Your task to perform on an android device: Open the phone app and click the voicemail tab. Image 0: 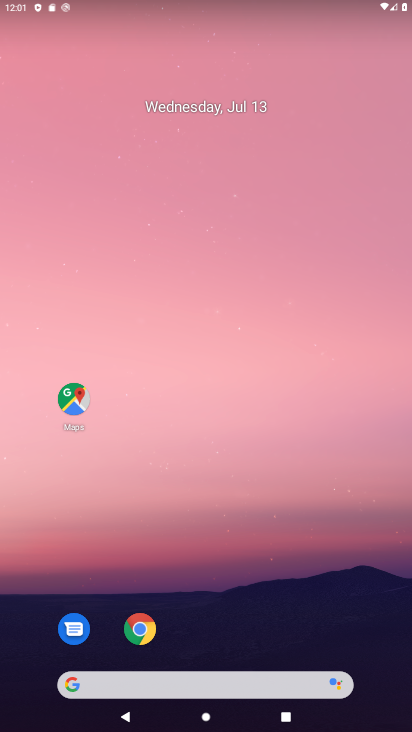
Step 0: drag from (200, 636) to (204, 141)
Your task to perform on an android device: Open the phone app and click the voicemail tab. Image 1: 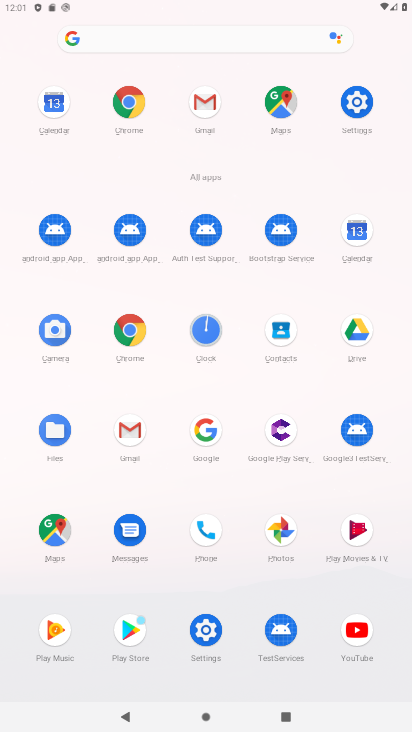
Step 1: click (207, 535)
Your task to perform on an android device: Open the phone app and click the voicemail tab. Image 2: 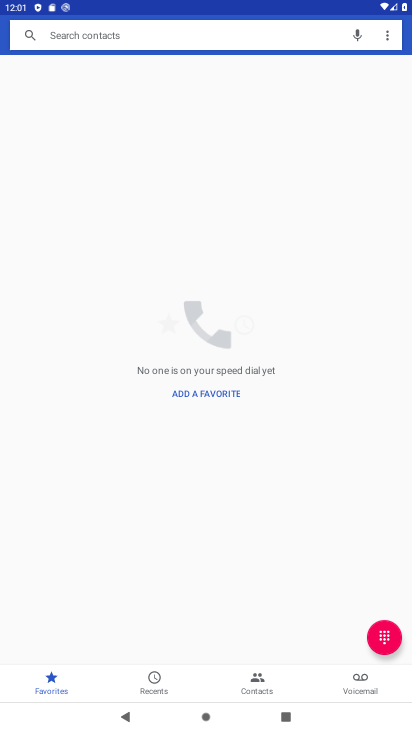
Step 2: click (364, 677)
Your task to perform on an android device: Open the phone app and click the voicemail tab. Image 3: 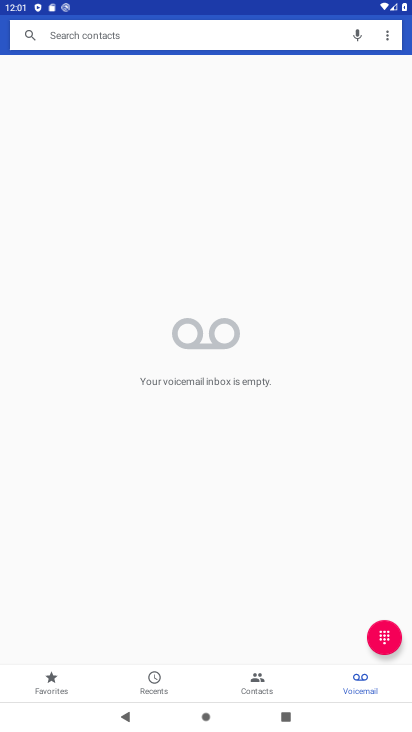
Step 3: task complete